Your task to perform on an android device: change the clock display to show seconds Image 0: 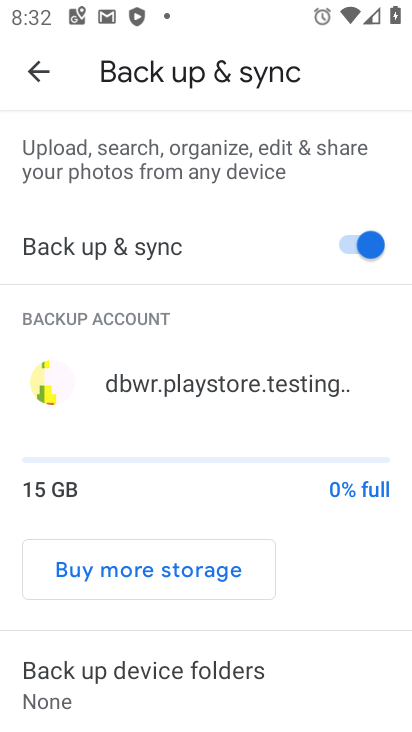
Step 0: press home button
Your task to perform on an android device: change the clock display to show seconds Image 1: 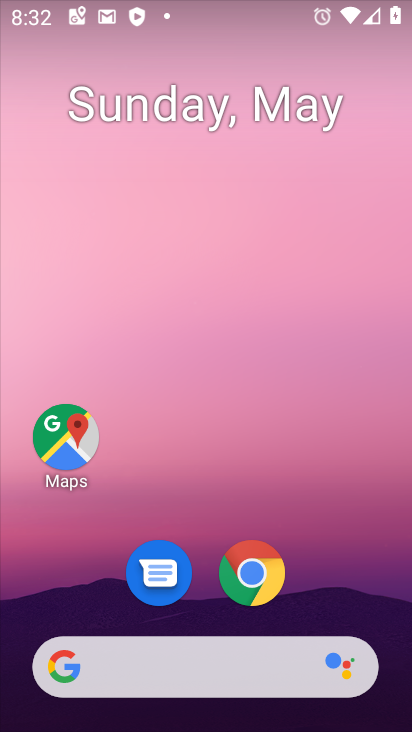
Step 1: drag from (213, 468) to (252, 2)
Your task to perform on an android device: change the clock display to show seconds Image 2: 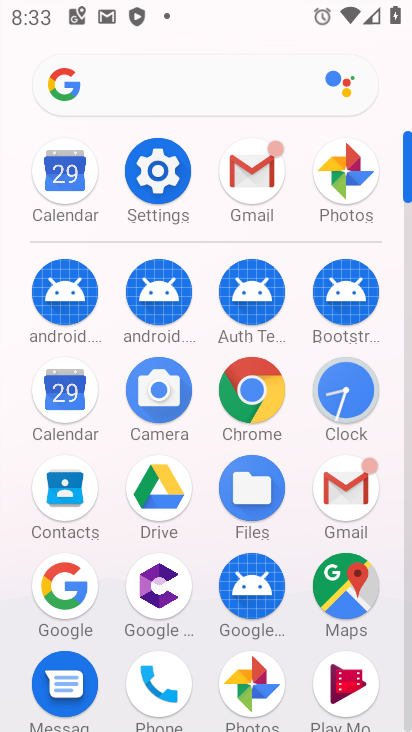
Step 2: click (351, 384)
Your task to perform on an android device: change the clock display to show seconds Image 3: 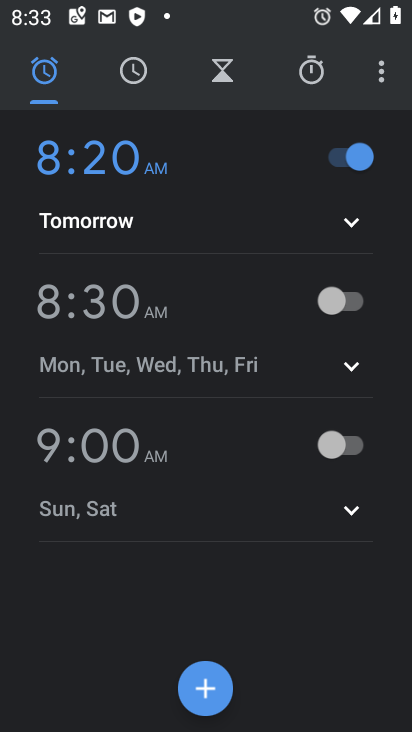
Step 3: click (379, 68)
Your task to perform on an android device: change the clock display to show seconds Image 4: 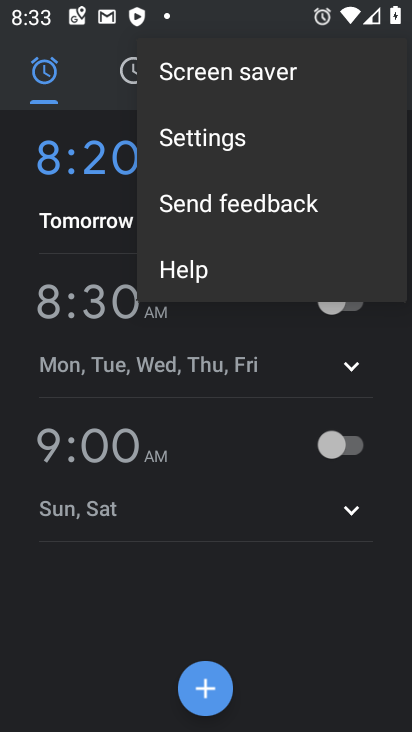
Step 4: click (236, 133)
Your task to perform on an android device: change the clock display to show seconds Image 5: 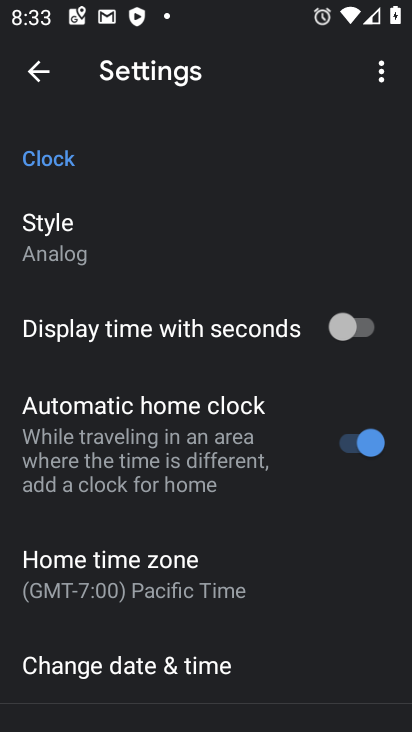
Step 5: click (345, 317)
Your task to perform on an android device: change the clock display to show seconds Image 6: 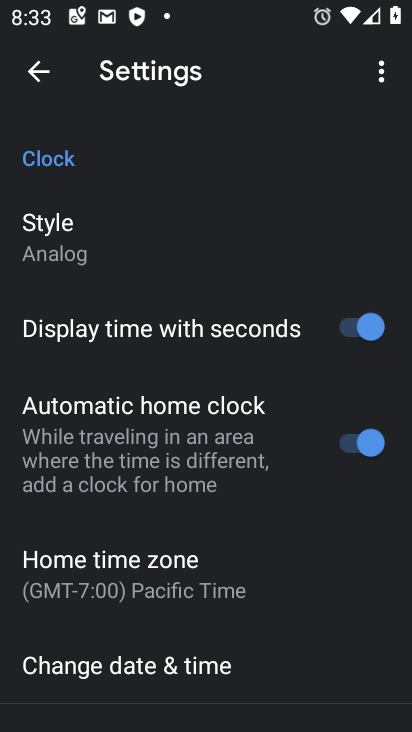
Step 6: click (35, 67)
Your task to perform on an android device: change the clock display to show seconds Image 7: 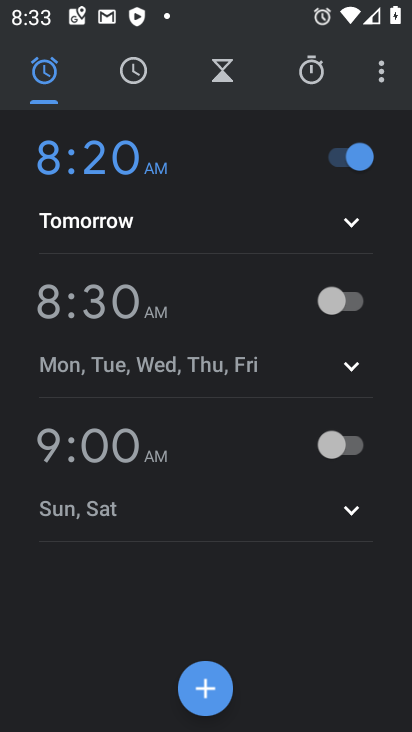
Step 7: click (128, 61)
Your task to perform on an android device: change the clock display to show seconds Image 8: 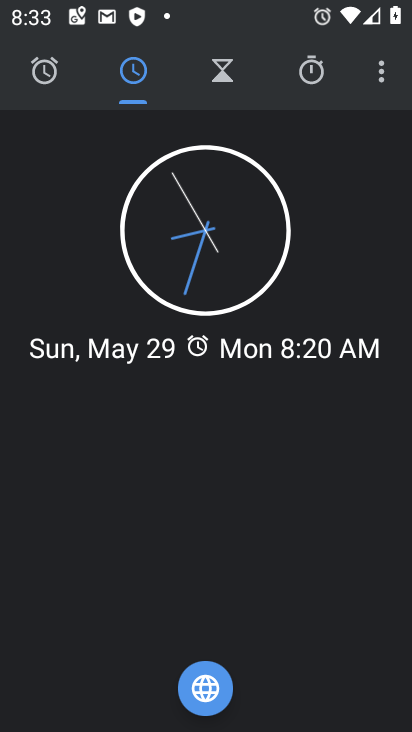
Step 8: task complete